Your task to perform on an android device: uninstall "LiveIn - Share Your Moment" Image 0: 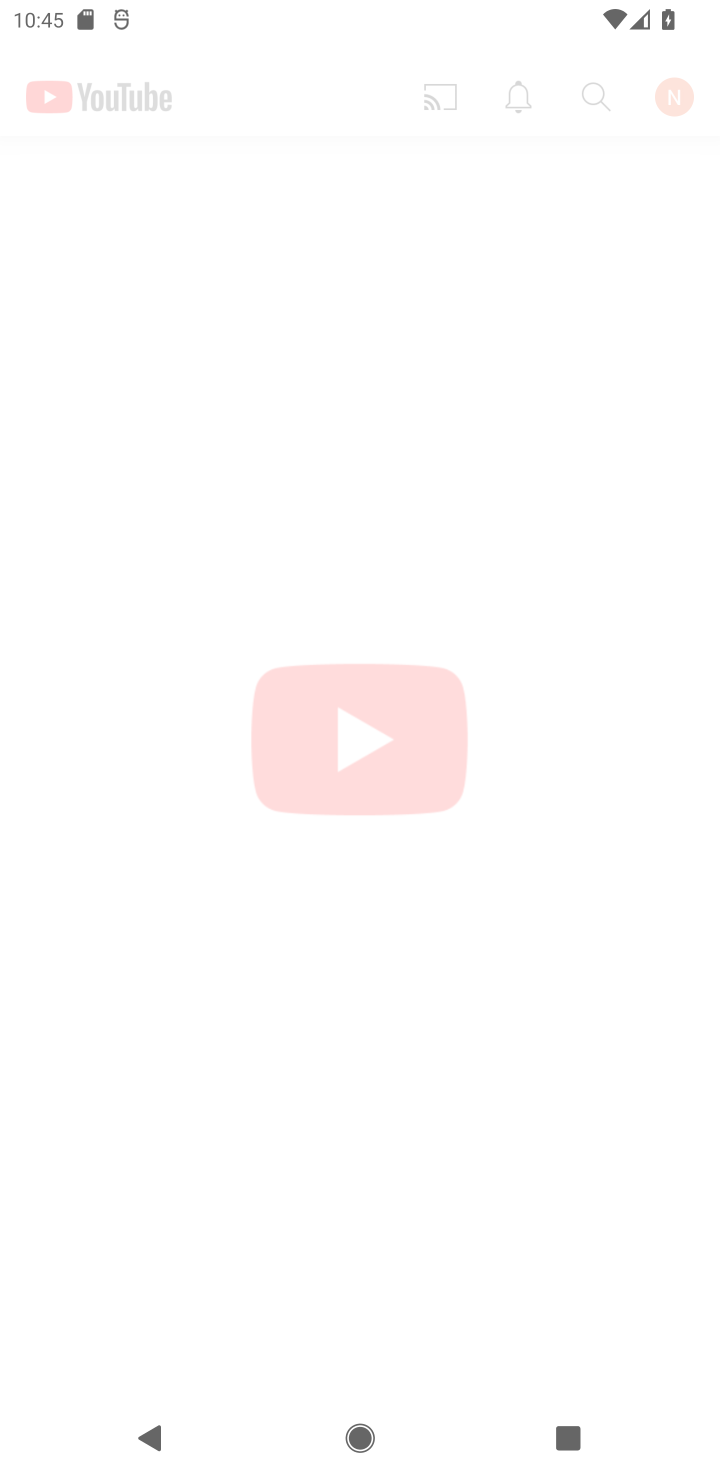
Step 0: press home button
Your task to perform on an android device: uninstall "LiveIn - Share Your Moment" Image 1: 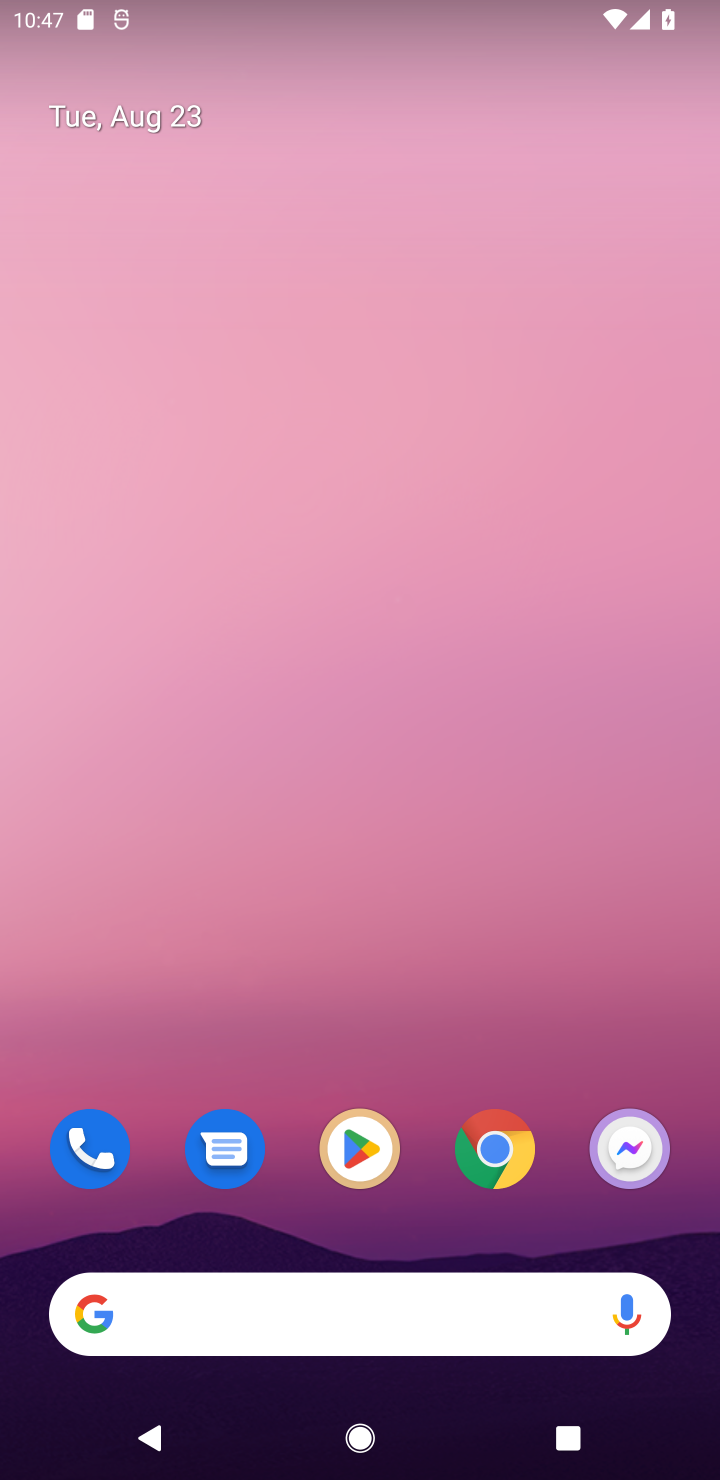
Step 1: task complete